Your task to perform on an android device: turn on priority inbox in the gmail app Image 0: 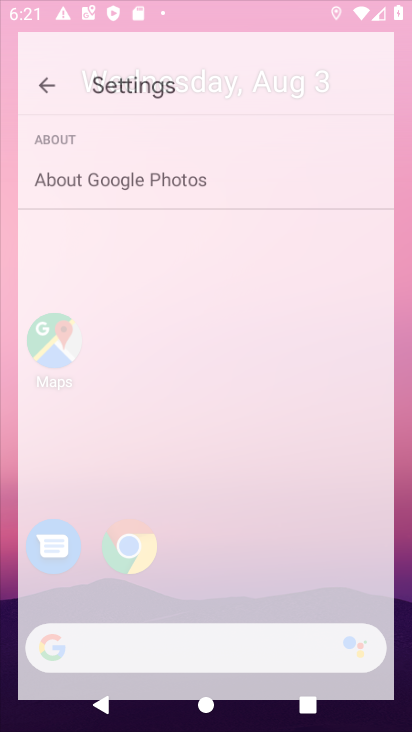
Step 0: press home button
Your task to perform on an android device: turn on priority inbox in the gmail app Image 1: 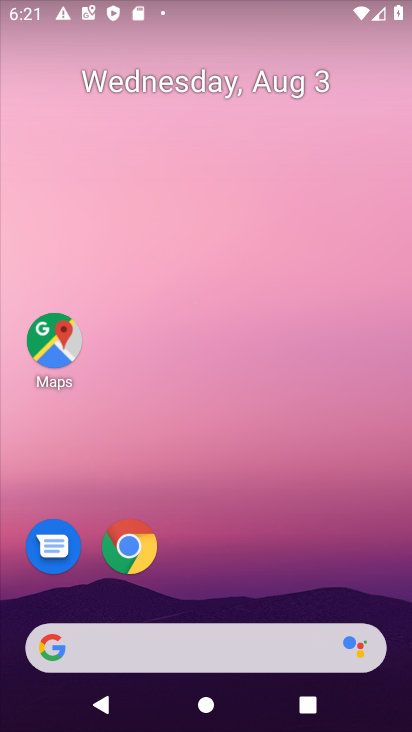
Step 1: drag from (223, 607) to (362, 123)
Your task to perform on an android device: turn on priority inbox in the gmail app Image 2: 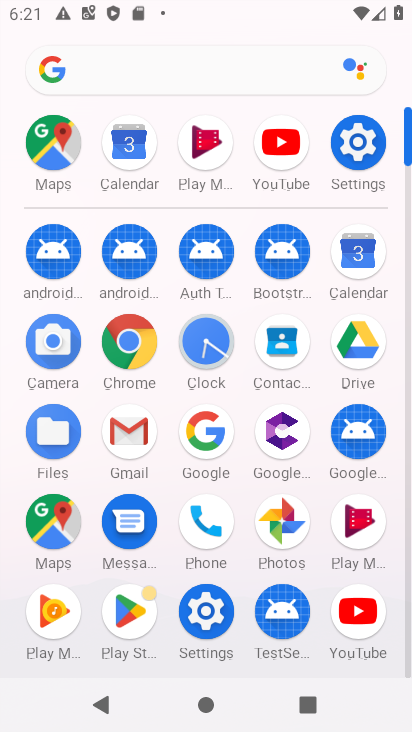
Step 2: click (131, 431)
Your task to perform on an android device: turn on priority inbox in the gmail app Image 3: 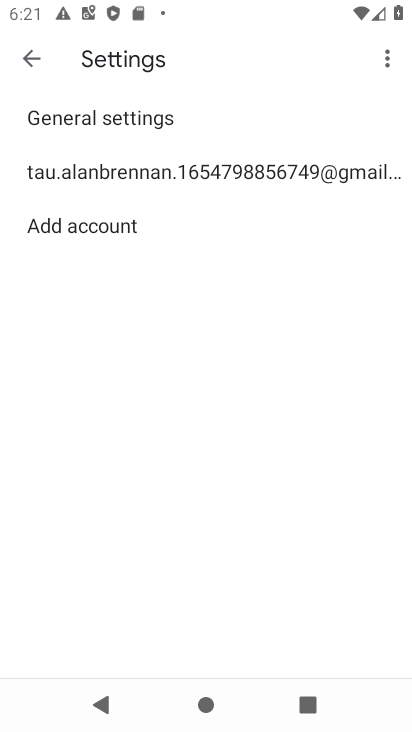
Step 3: click (148, 174)
Your task to perform on an android device: turn on priority inbox in the gmail app Image 4: 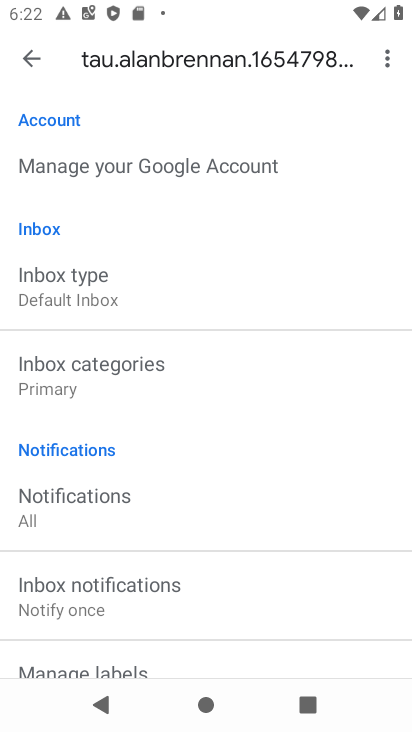
Step 4: click (63, 292)
Your task to perform on an android device: turn on priority inbox in the gmail app Image 5: 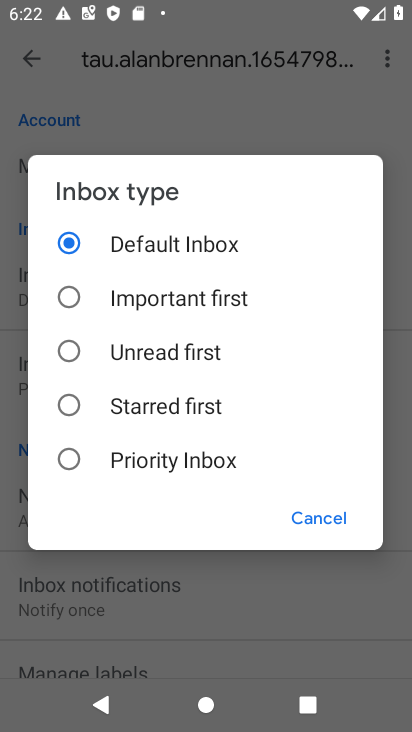
Step 5: click (74, 460)
Your task to perform on an android device: turn on priority inbox in the gmail app Image 6: 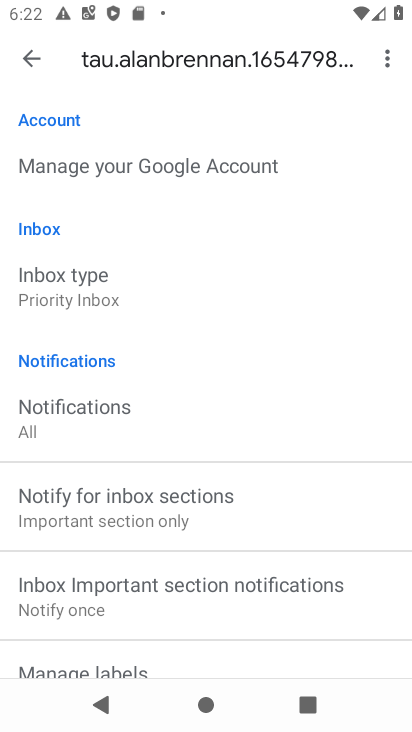
Step 6: task complete